Your task to perform on an android device: change alarm snooze length Image 0: 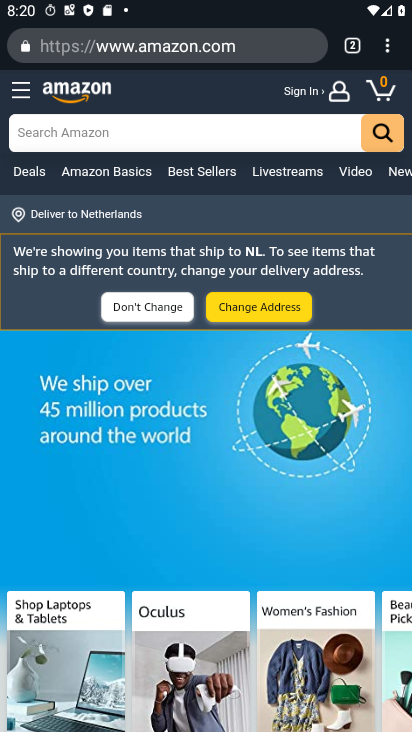
Step 0: press home button
Your task to perform on an android device: change alarm snooze length Image 1: 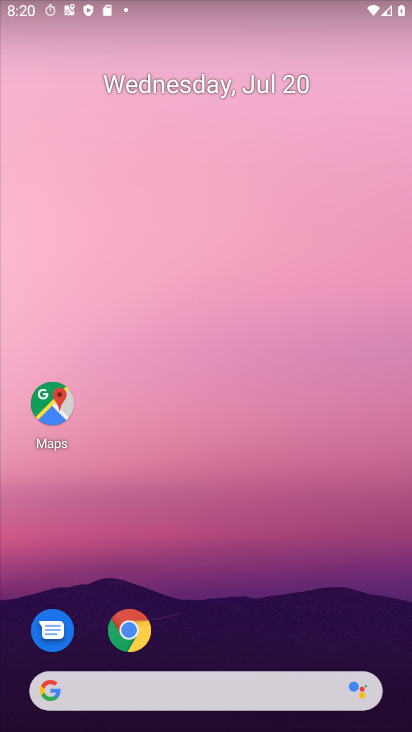
Step 1: drag from (236, 680) to (253, 319)
Your task to perform on an android device: change alarm snooze length Image 2: 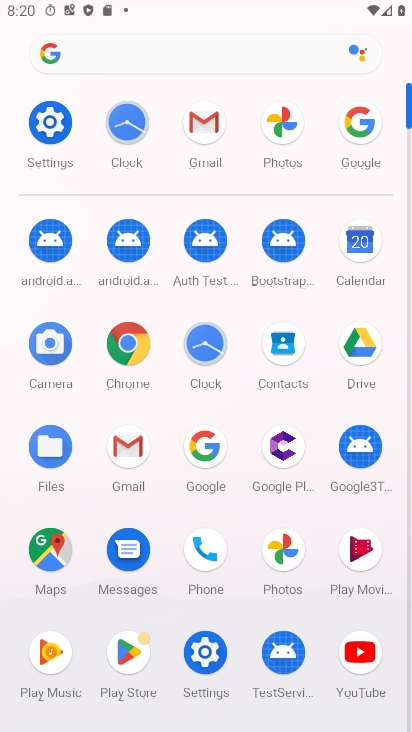
Step 2: drag from (265, 510) to (287, 413)
Your task to perform on an android device: change alarm snooze length Image 3: 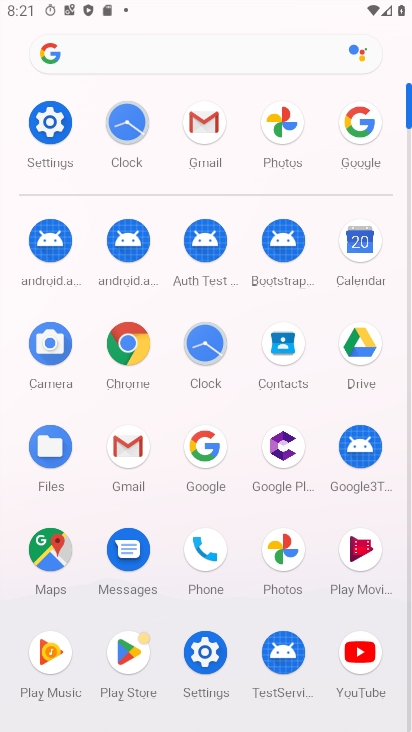
Step 3: click (205, 352)
Your task to perform on an android device: change alarm snooze length Image 4: 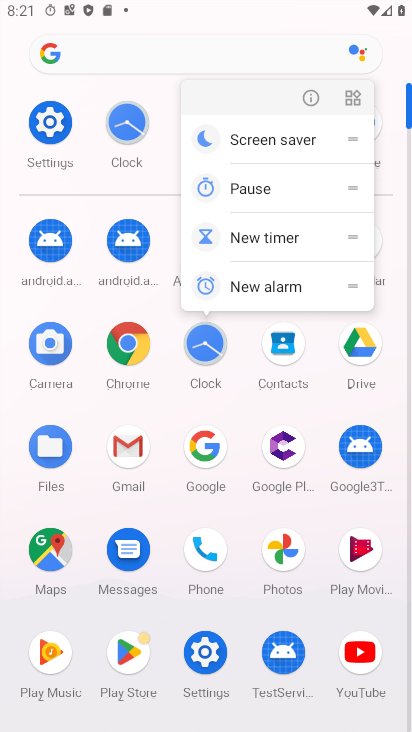
Step 4: click (210, 343)
Your task to perform on an android device: change alarm snooze length Image 5: 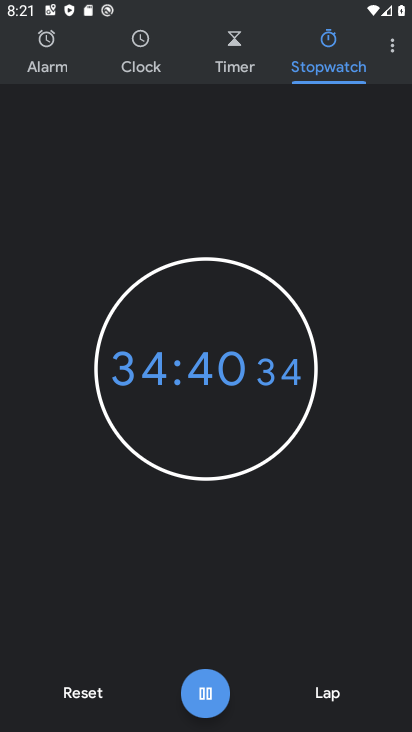
Step 5: click (397, 40)
Your task to perform on an android device: change alarm snooze length Image 6: 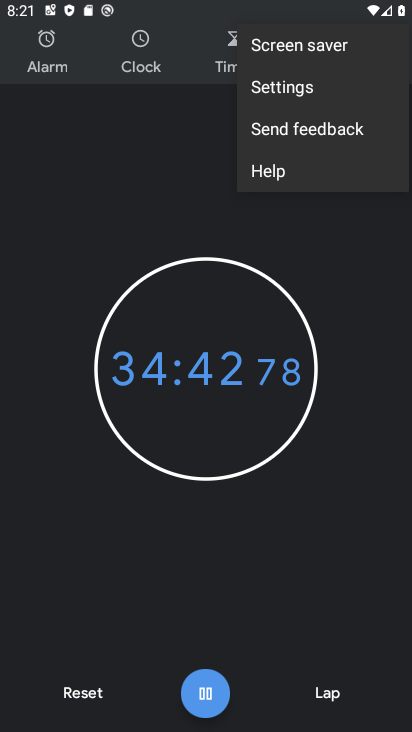
Step 6: click (292, 95)
Your task to perform on an android device: change alarm snooze length Image 7: 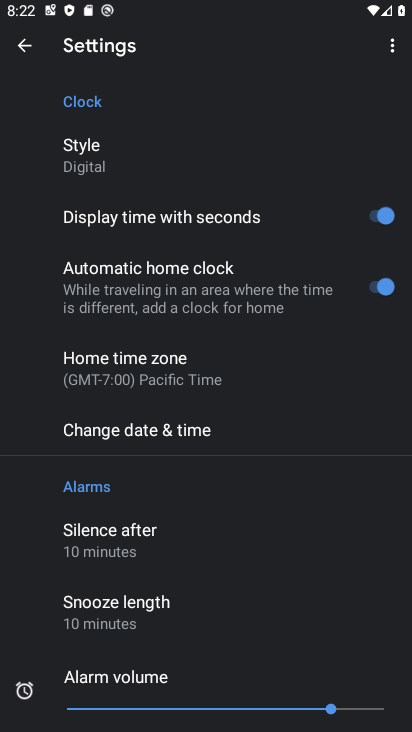
Step 7: click (163, 610)
Your task to perform on an android device: change alarm snooze length Image 8: 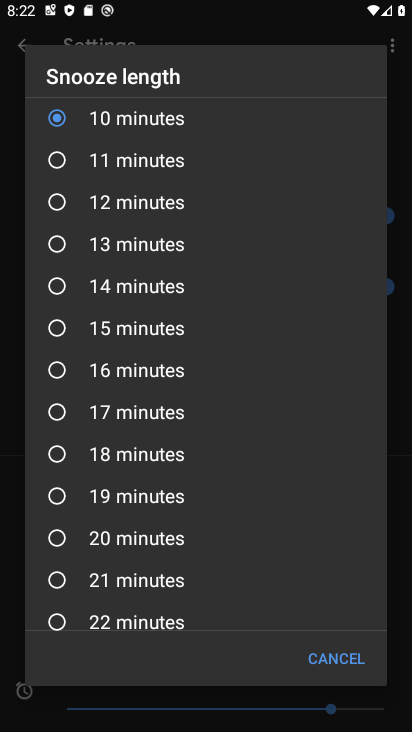
Step 8: click (59, 213)
Your task to perform on an android device: change alarm snooze length Image 9: 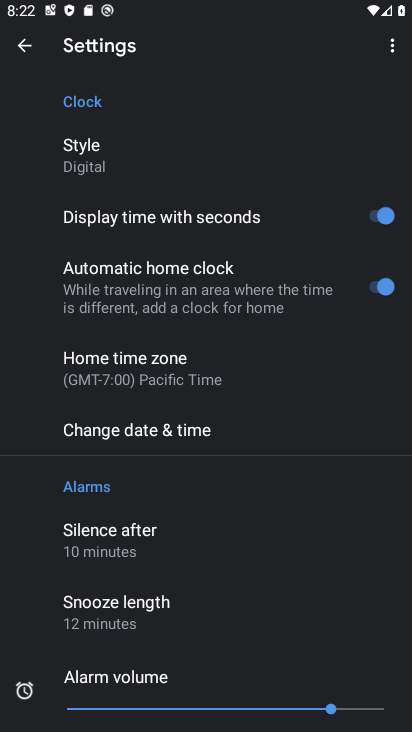
Step 9: task complete